Your task to perform on an android device: turn smart compose on in the gmail app Image 0: 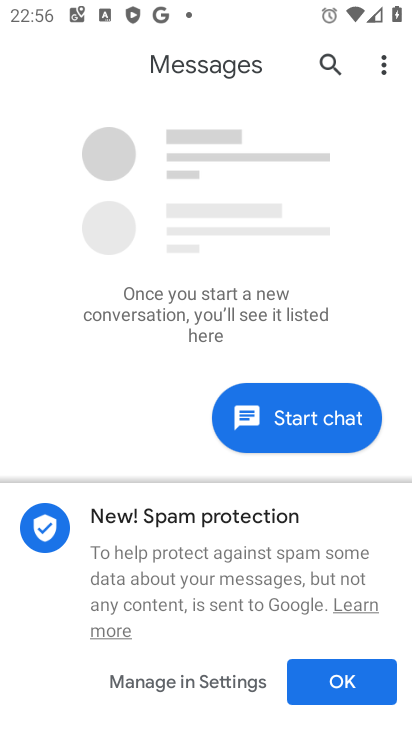
Step 0: press home button
Your task to perform on an android device: turn smart compose on in the gmail app Image 1: 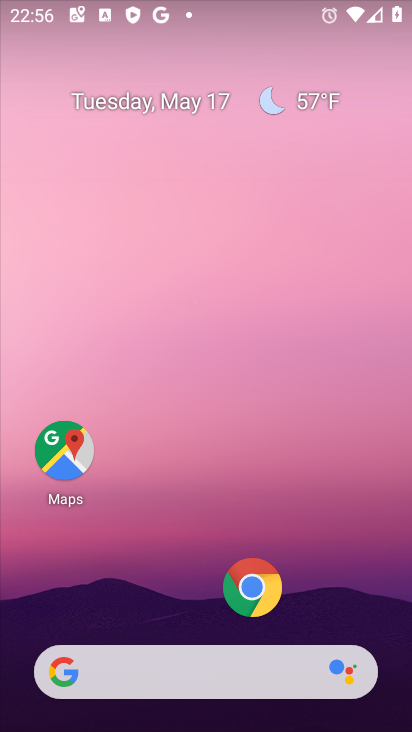
Step 1: drag from (203, 561) to (276, 100)
Your task to perform on an android device: turn smart compose on in the gmail app Image 2: 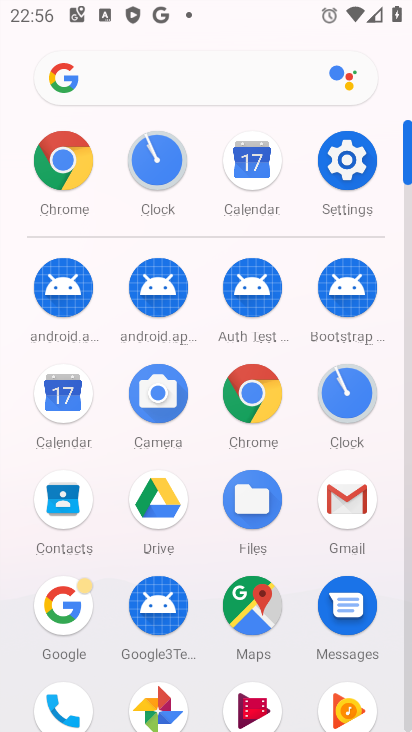
Step 2: click (338, 518)
Your task to perform on an android device: turn smart compose on in the gmail app Image 3: 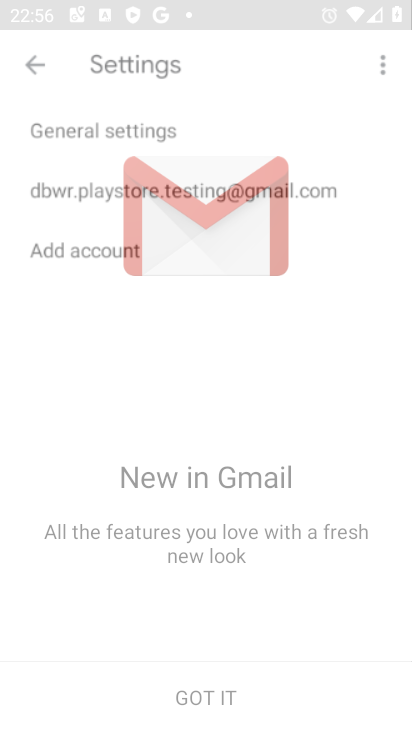
Step 3: click (339, 519)
Your task to perform on an android device: turn smart compose on in the gmail app Image 4: 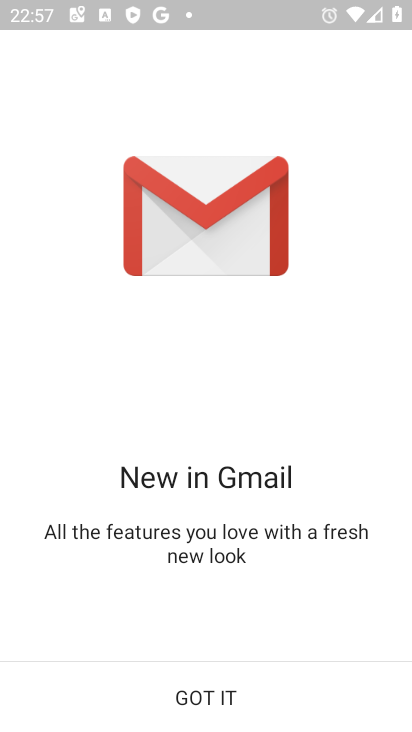
Step 4: click (201, 709)
Your task to perform on an android device: turn smart compose on in the gmail app Image 5: 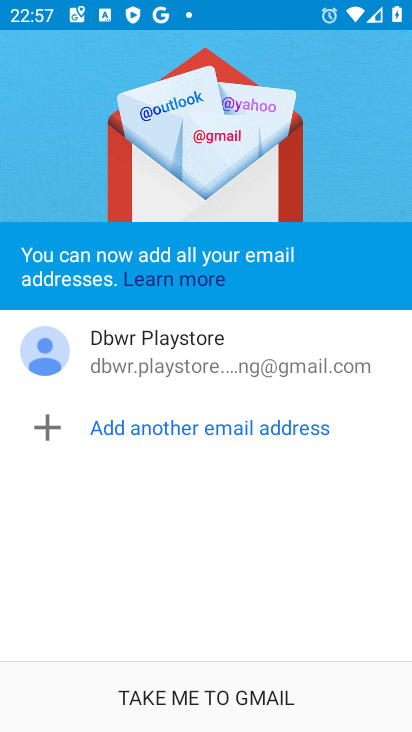
Step 5: click (205, 698)
Your task to perform on an android device: turn smart compose on in the gmail app Image 6: 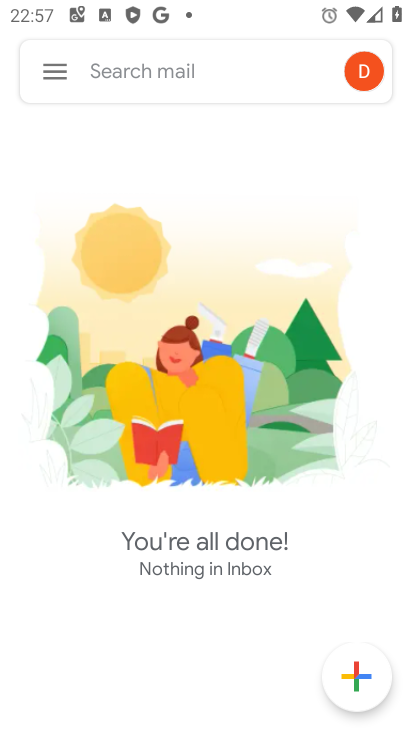
Step 6: click (66, 72)
Your task to perform on an android device: turn smart compose on in the gmail app Image 7: 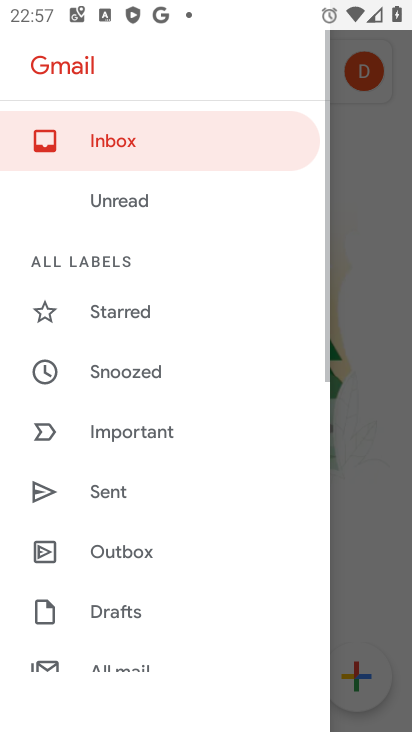
Step 7: drag from (105, 566) to (219, 130)
Your task to perform on an android device: turn smart compose on in the gmail app Image 8: 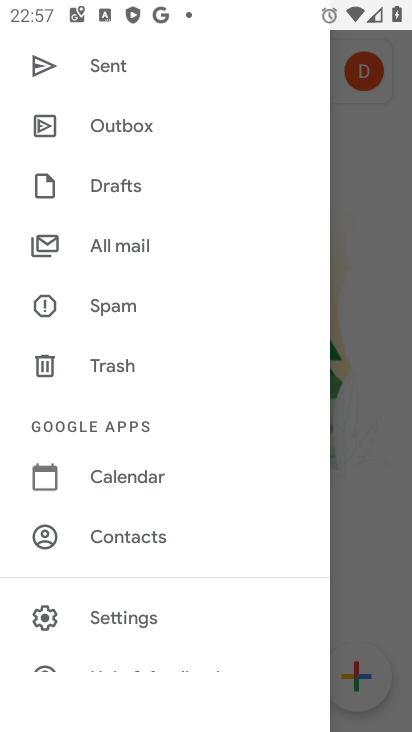
Step 8: click (169, 620)
Your task to perform on an android device: turn smart compose on in the gmail app Image 9: 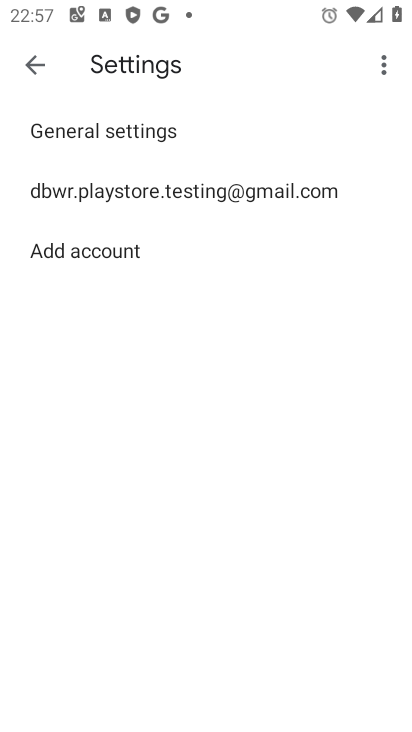
Step 9: click (214, 200)
Your task to perform on an android device: turn smart compose on in the gmail app Image 10: 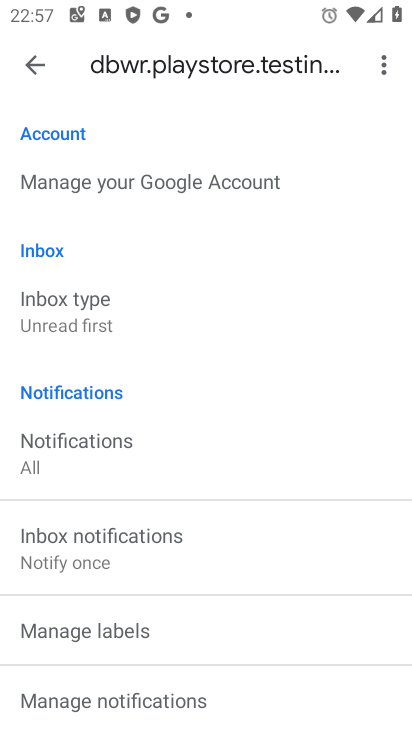
Step 10: task complete